Your task to perform on an android device: Go to internet settings Image 0: 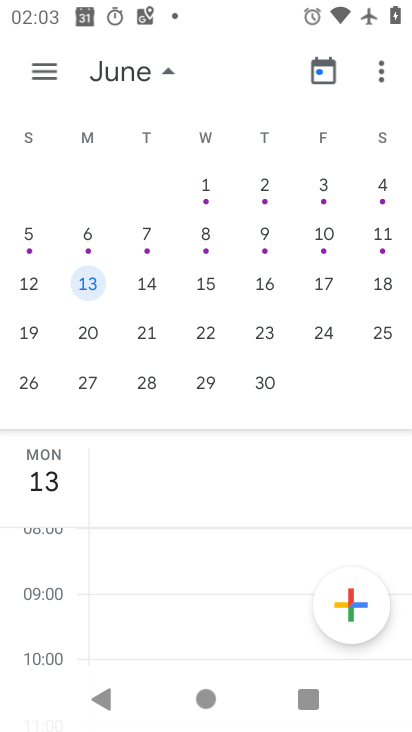
Step 0: press home button
Your task to perform on an android device: Go to internet settings Image 1: 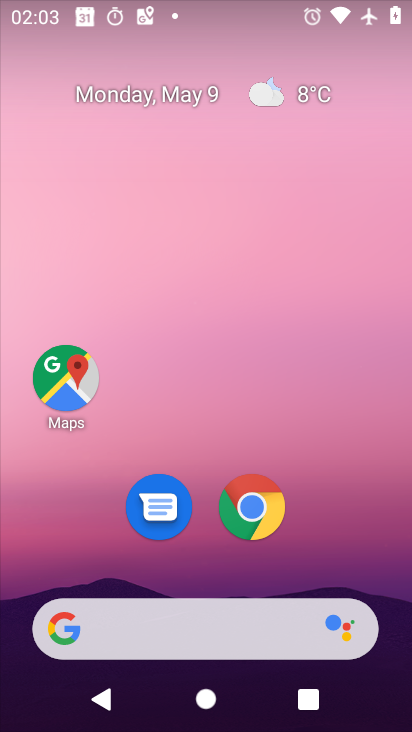
Step 1: drag from (221, 723) to (216, 140)
Your task to perform on an android device: Go to internet settings Image 2: 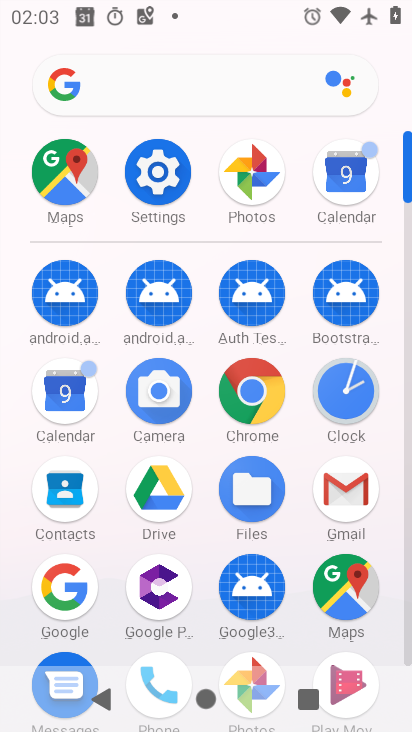
Step 2: click (160, 162)
Your task to perform on an android device: Go to internet settings Image 3: 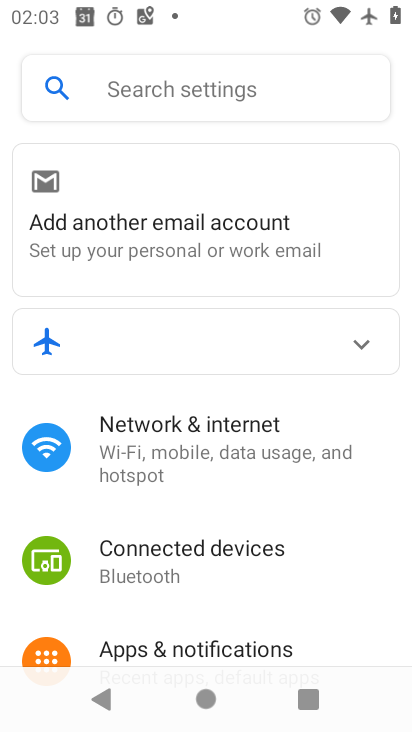
Step 3: drag from (182, 613) to (177, 448)
Your task to perform on an android device: Go to internet settings Image 4: 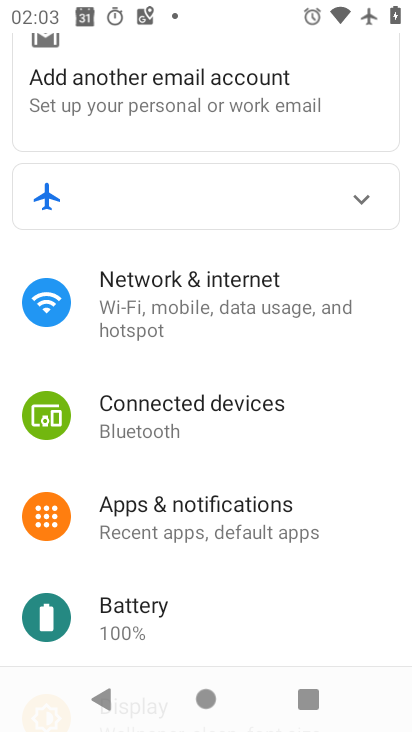
Step 4: click (165, 294)
Your task to perform on an android device: Go to internet settings Image 5: 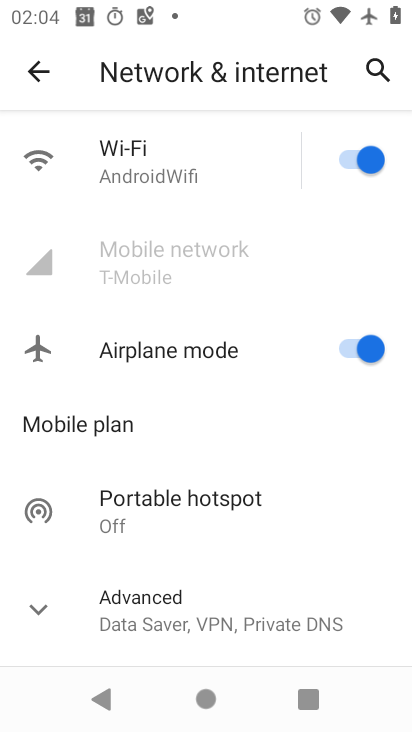
Step 5: task complete